Your task to perform on an android device: Go to privacy settings Image 0: 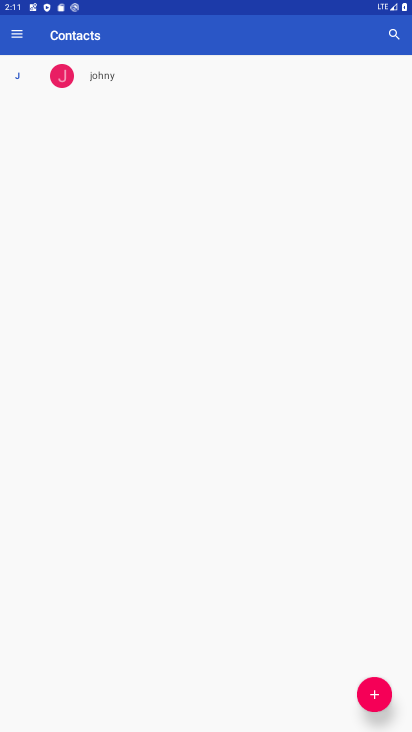
Step 0: press home button
Your task to perform on an android device: Go to privacy settings Image 1: 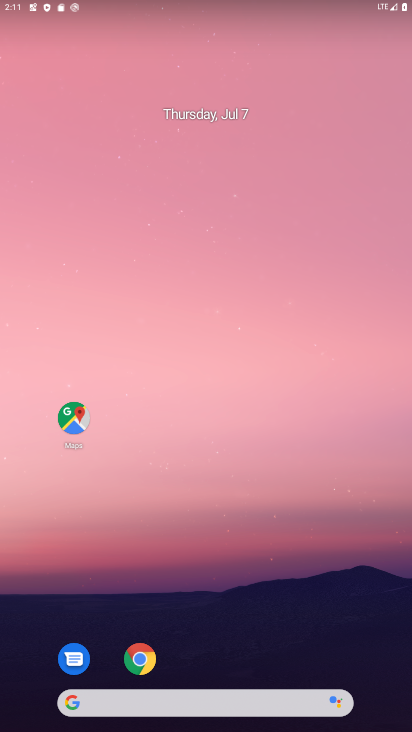
Step 1: drag from (222, 648) to (178, 123)
Your task to perform on an android device: Go to privacy settings Image 2: 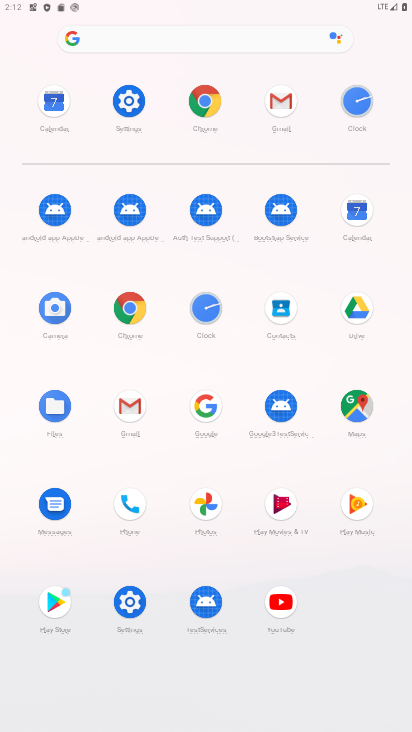
Step 2: click (130, 99)
Your task to perform on an android device: Go to privacy settings Image 3: 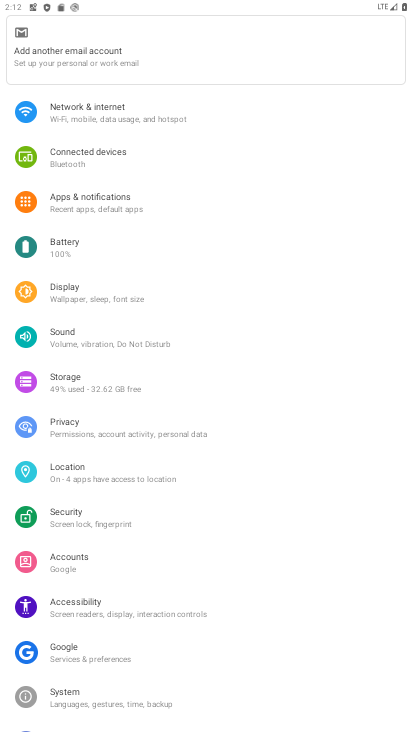
Step 3: click (118, 437)
Your task to perform on an android device: Go to privacy settings Image 4: 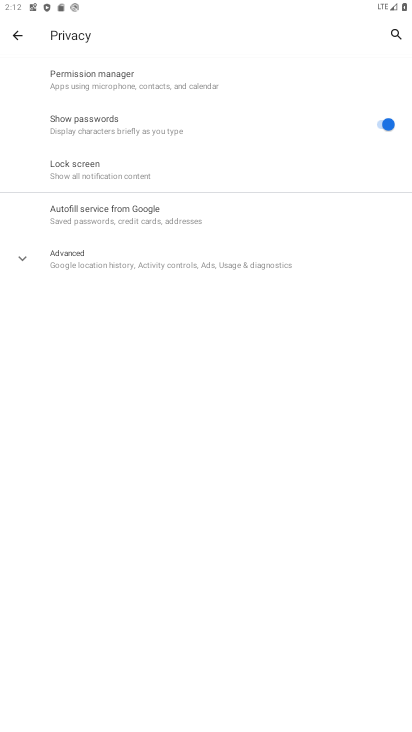
Step 4: task complete